Your task to perform on an android device: Search for vegetarian restaurants on Maps Image 0: 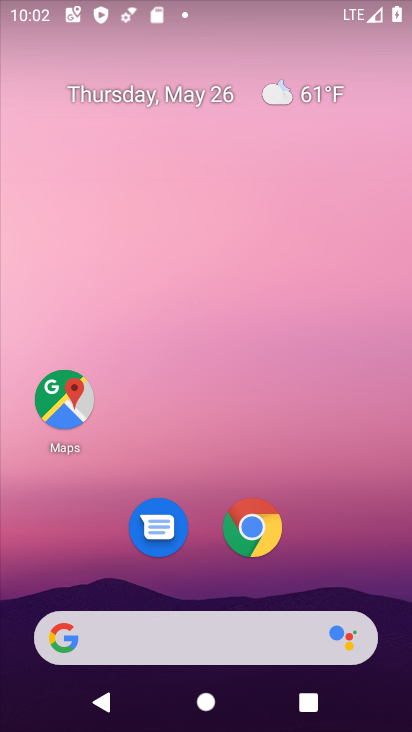
Step 0: click (60, 399)
Your task to perform on an android device: Search for vegetarian restaurants on Maps Image 1: 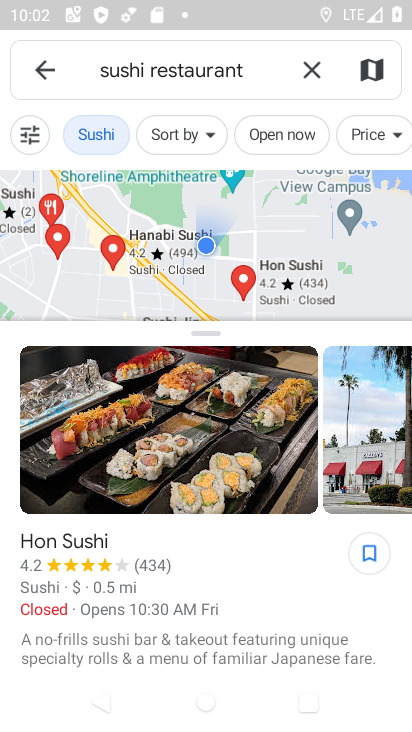
Step 1: click (307, 67)
Your task to perform on an android device: Search for vegetarian restaurants on Maps Image 2: 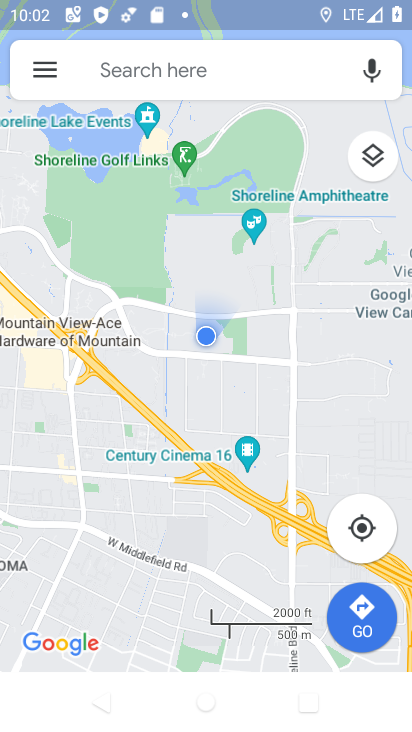
Step 2: click (114, 76)
Your task to perform on an android device: Search for vegetarian restaurants on Maps Image 3: 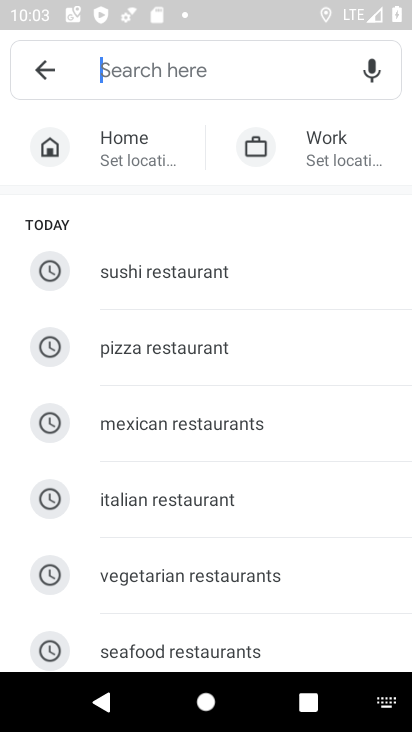
Step 3: click (146, 571)
Your task to perform on an android device: Search for vegetarian restaurants on Maps Image 4: 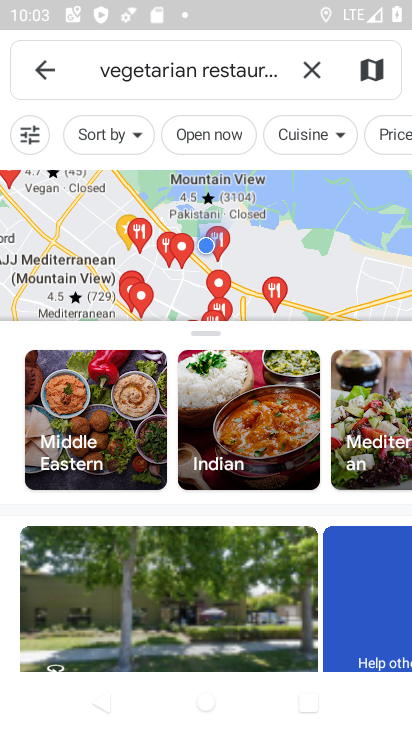
Step 4: task complete